Your task to perform on an android device: turn on showing notifications on the lock screen Image 0: 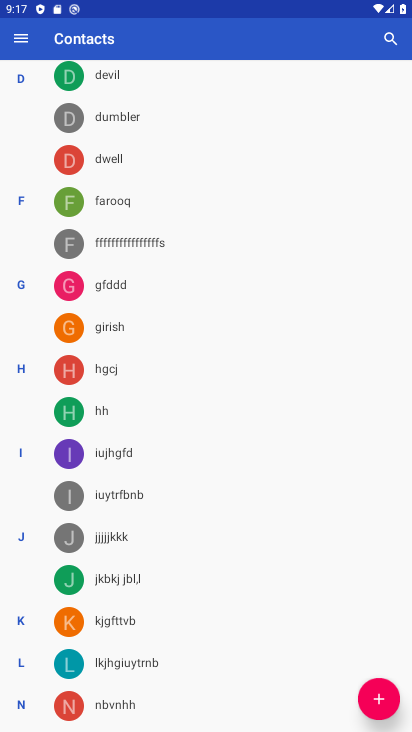
Step 0: press home button
Your task to perform on an android device: turn on showing notifications on the lock screen Image 1: 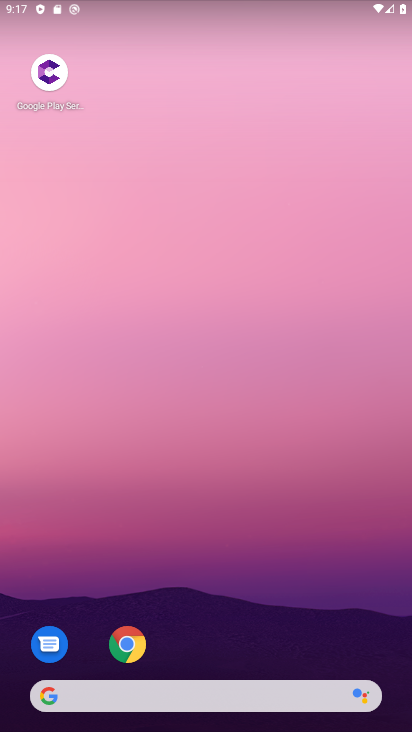
Step 1: drag from (354, 635) to (335, 211)
Your task to perform on an android device: turn on showing notifications on the lock screen Image 2: 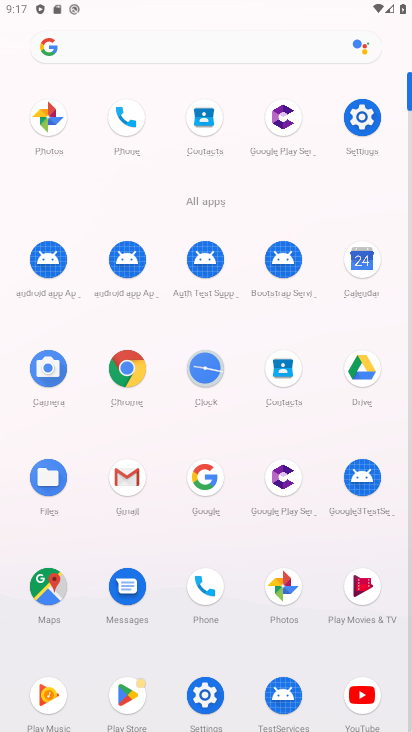
Step 2: click (209, 695)
Your task to perform on an android device: turn on showing notifications on the lock screen Image 3: 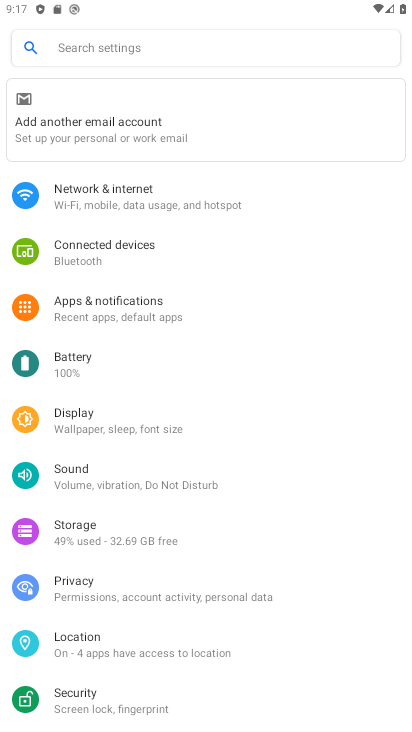
Step 3: click (131, 296)
Your task to perform on an android device: turn on showing notifications on the lock screen Image 4: 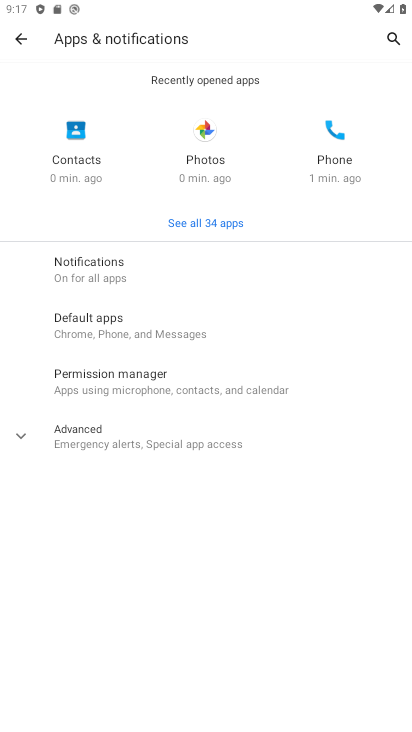
Step 4: click (86, 274)
Your task to perform on an android device: turn on showing notifications on the lock screen Image 5: 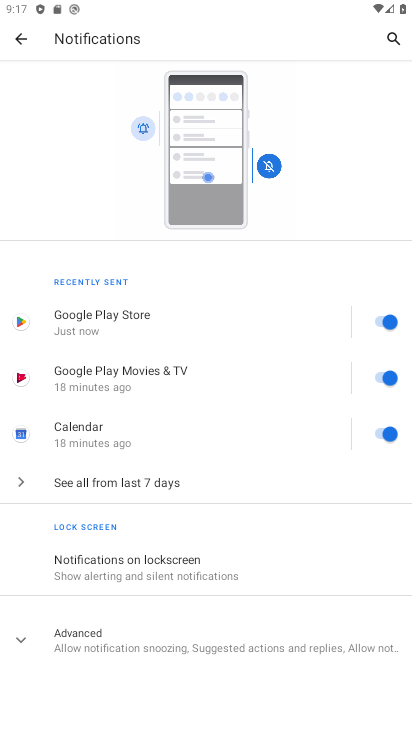
Step 5: click (121, 556)
Your task to perform on an android device: turn on showing notifications on the lock screen Image 6: 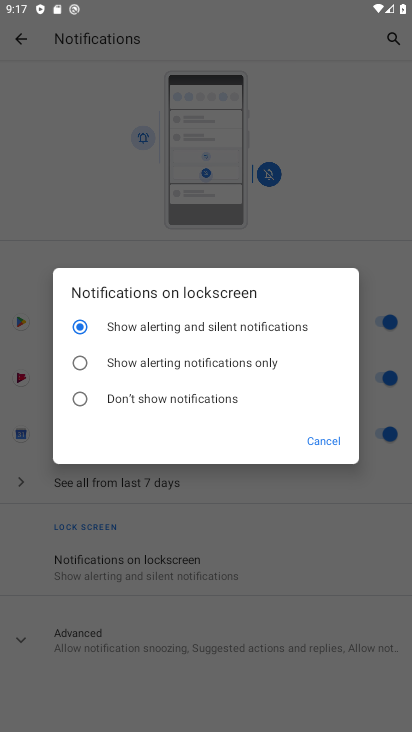
Step 6: task complete